Your task to perform on an android device: Clear the shopping cart on amazon.com. Search for "usb-c to usb-a" on amazon.com, select the first entry, and add it to the cart. Image 0: 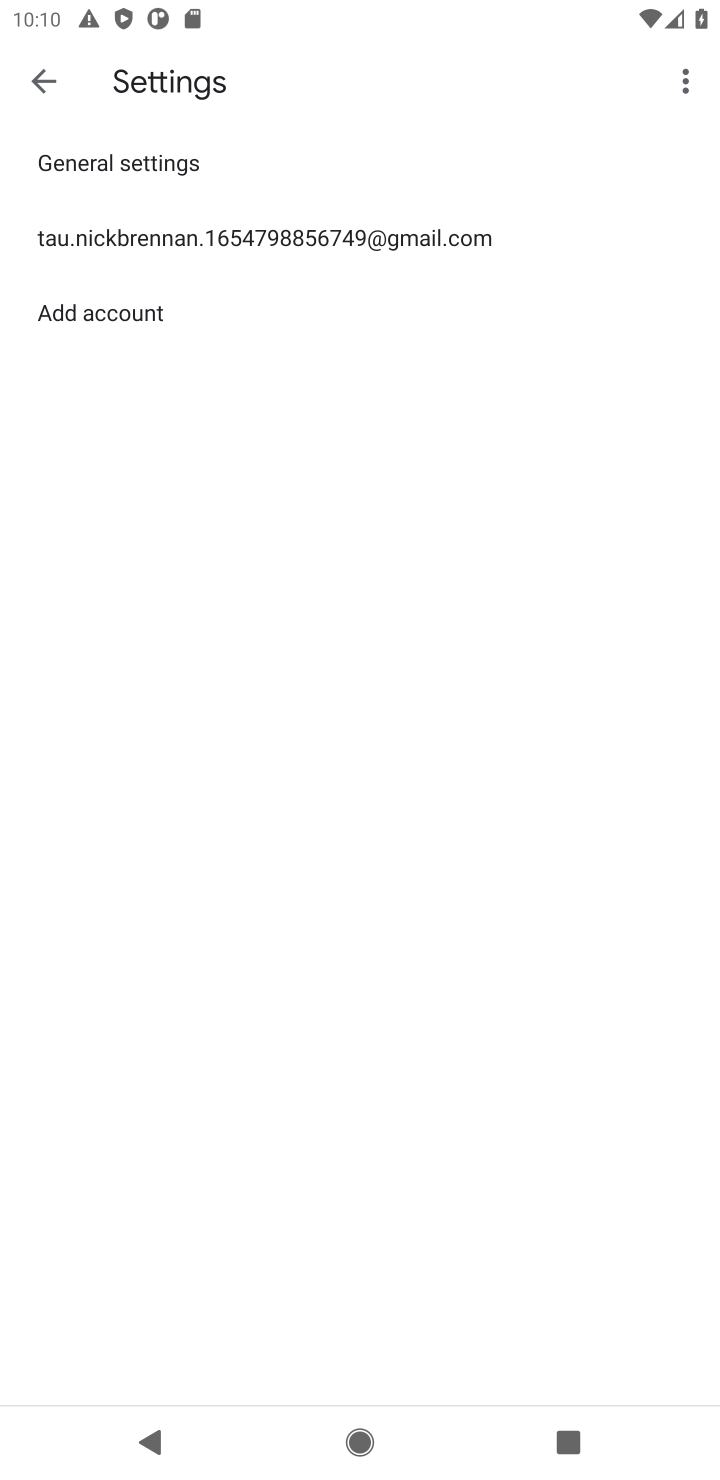
Step 0: press home button
Your task to perform on an android device: Clear the shopping cart on amazon.com. Search for "usb-c to usb-a" on amazon.com, select the first entry, and add it to the cart. Image 1: 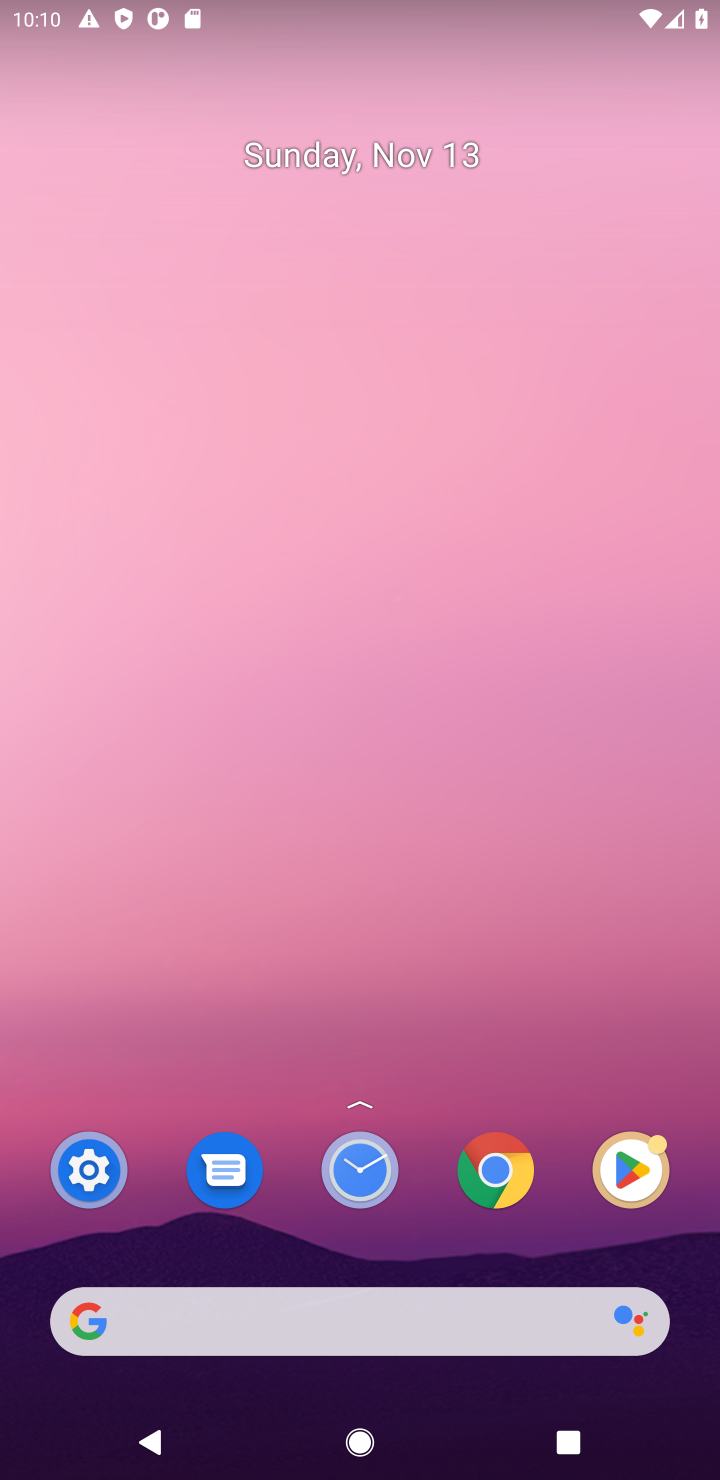
Step 1: click (295, 1344)
Your task to perform on an android device: Clear the shopping cart on amazon.com. Search for "usb-c to usb-a" on amazon.com, select the first entry, and add it to the cart. Image 2: 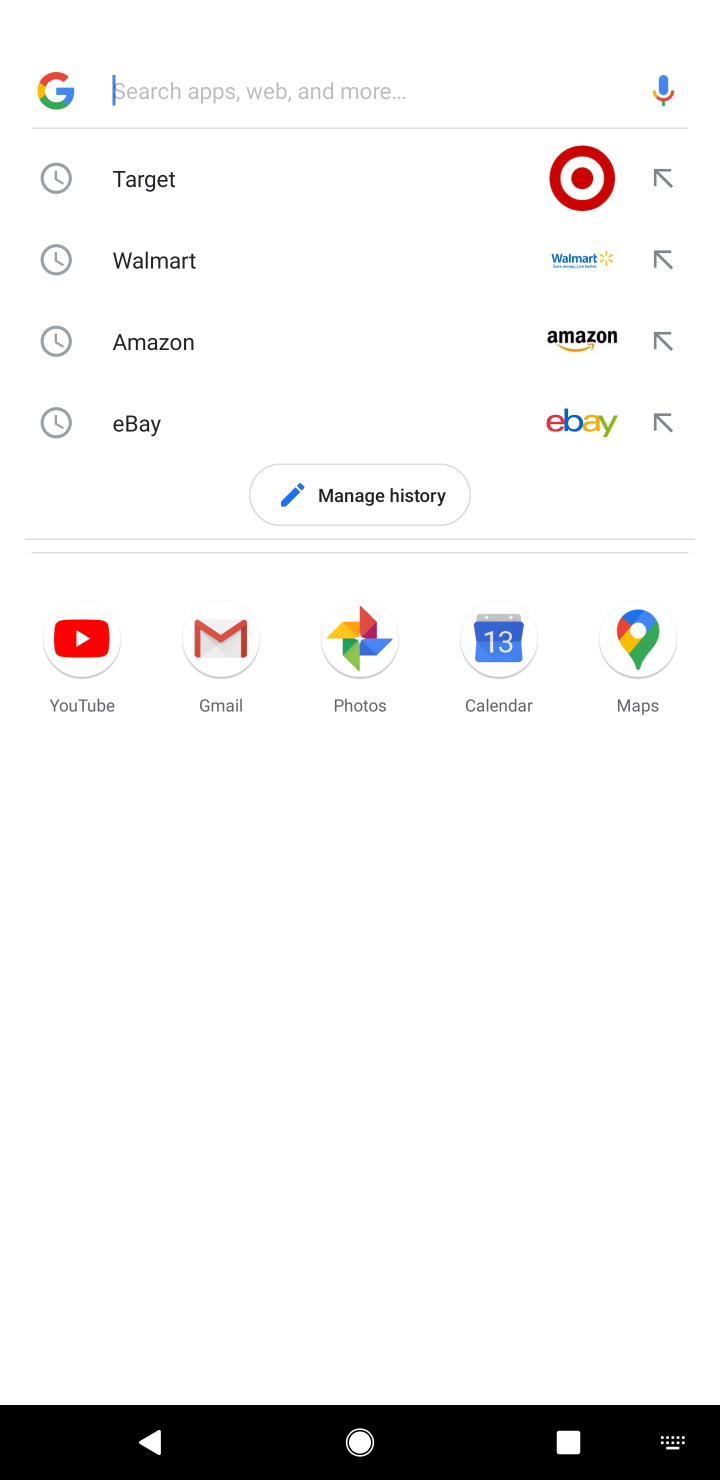
Step 2: type "amazon"
Your task to perform on an android device: Clear the shopping cart on amazon.com. Search for "usb-c to usb-a" on amazon.com, select the first entry, and add it to the cart. Image 3: 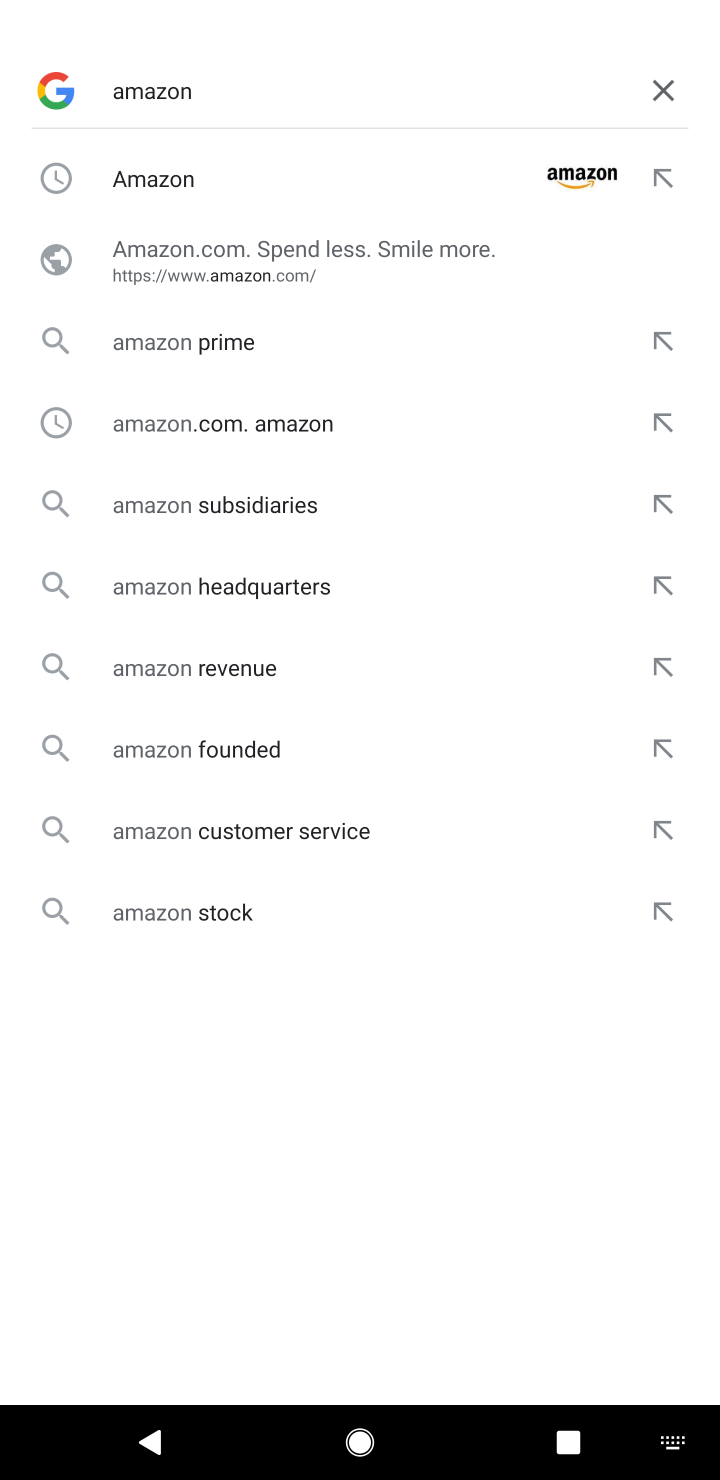
Step 3: click (289, 160)
Your task to perform on an android device: Clear the shopping cart on amazon.com. Search for "usb-c to usb-a" on amazon.com, select the first entry, and add it to the cart. Image 4: 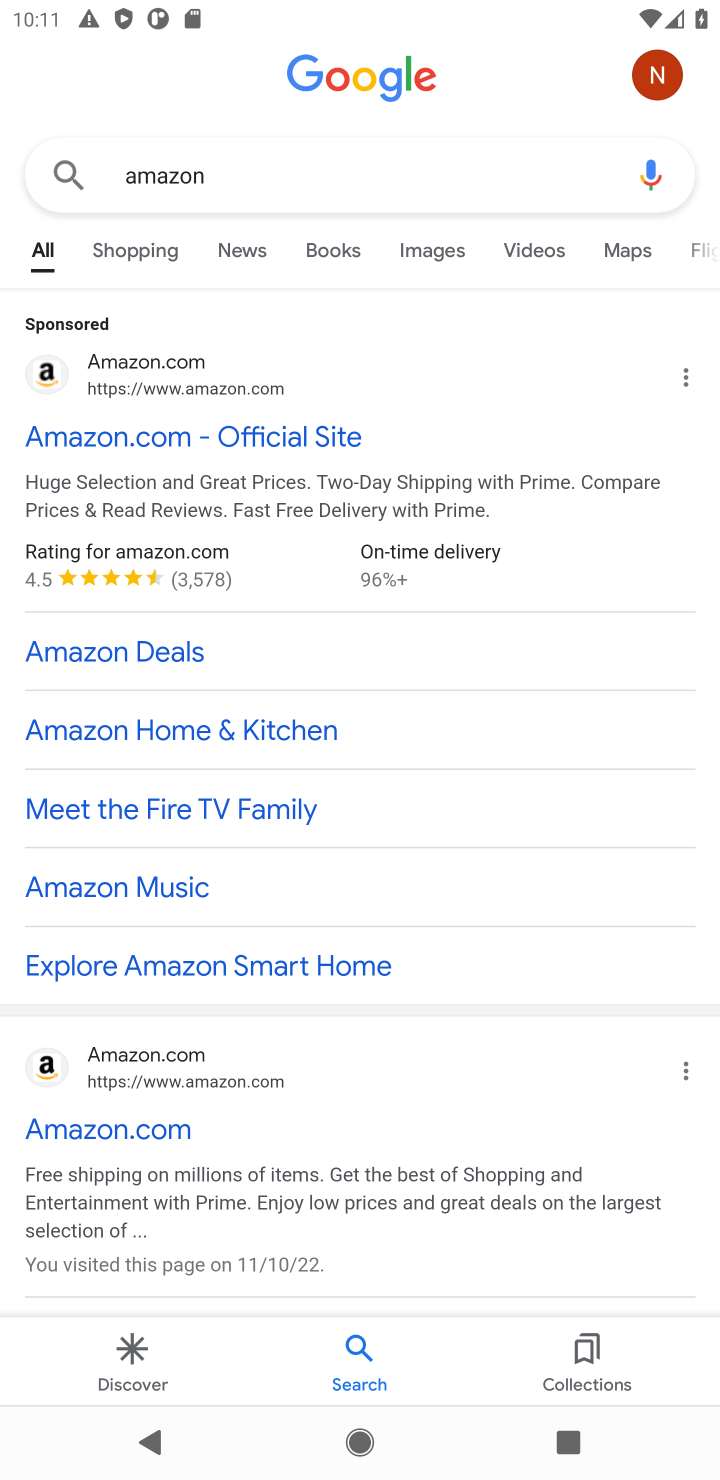
Step 4: click (197, 449)
Your task to perform on an android device: Clear the shopping cart on amazon.com. Search for "usb-c to usb-a" on amazon.com, select the first entry, and add it to the cart. Image 5: 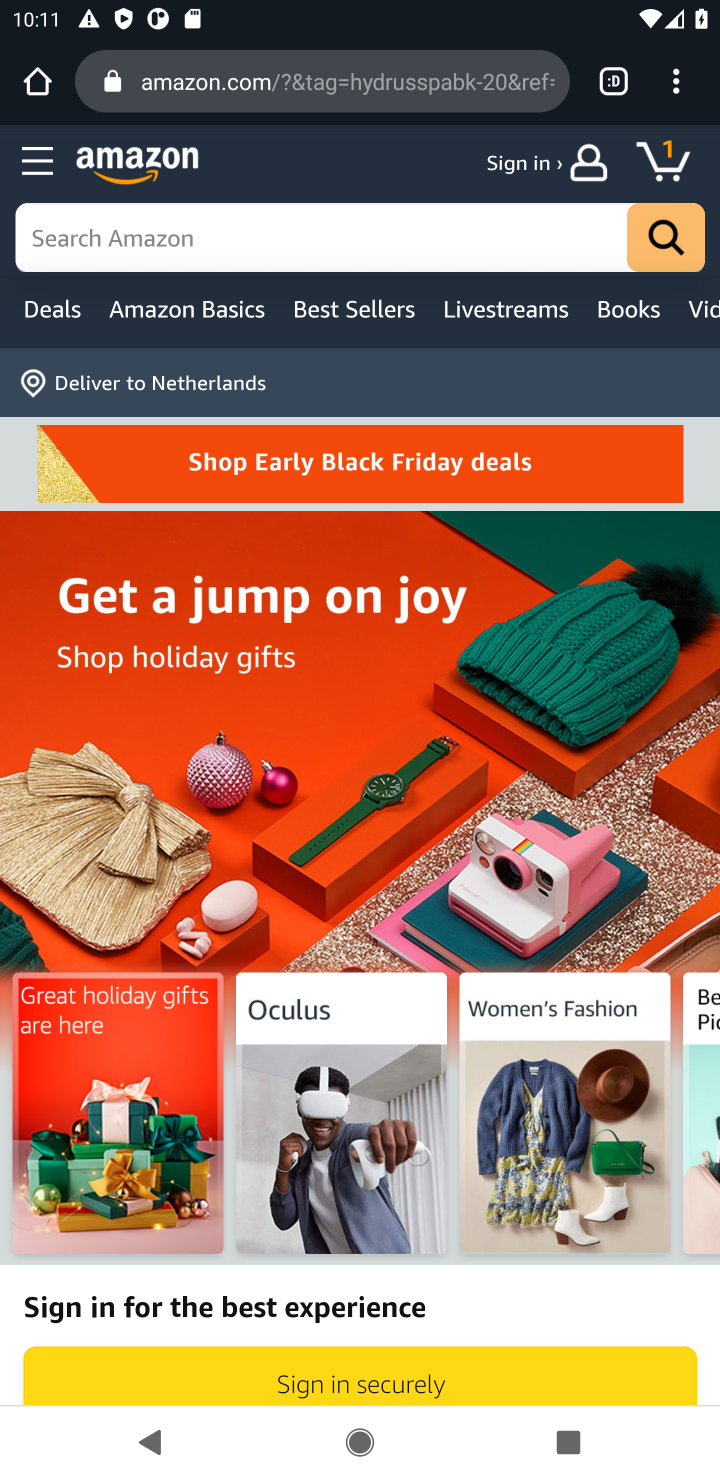
Step 5: task complete